Your task to perform on an android device: turn on javascript in the chrome app Image 0: 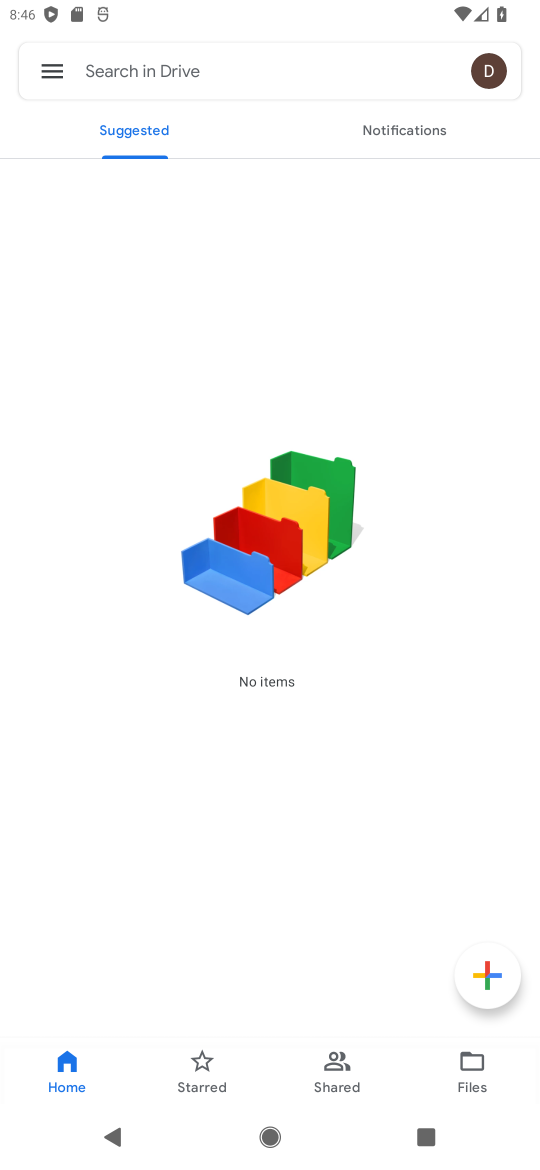
Step 0: press home button
Your task to perform on an android device: turn on javascript in the chrome app Image 1: 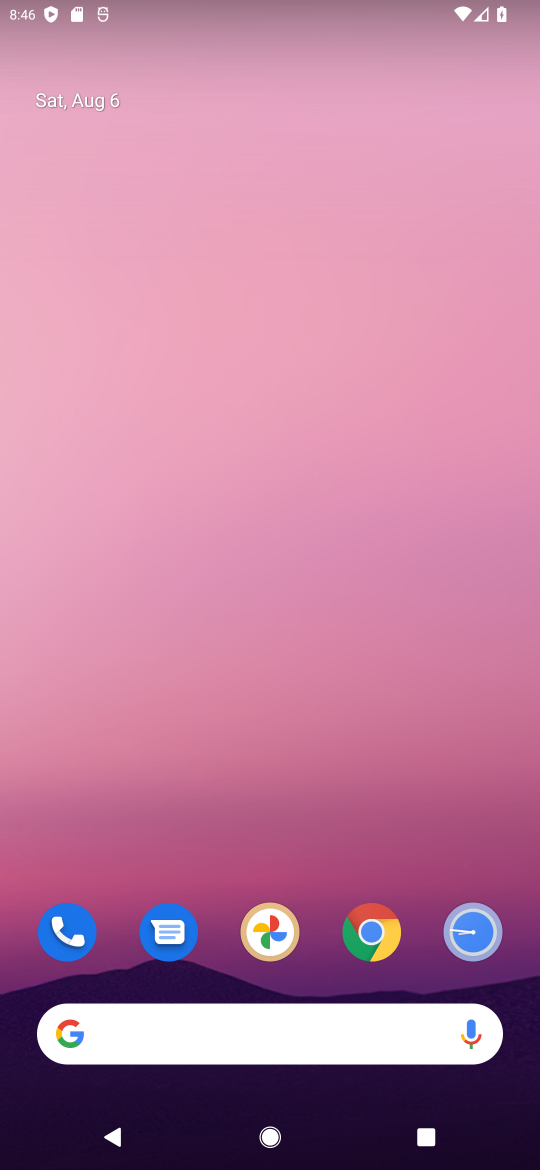
Step 1: click (373, 932)
Your task to perform on an android device: turn on javascript in the chrome app Image 2: 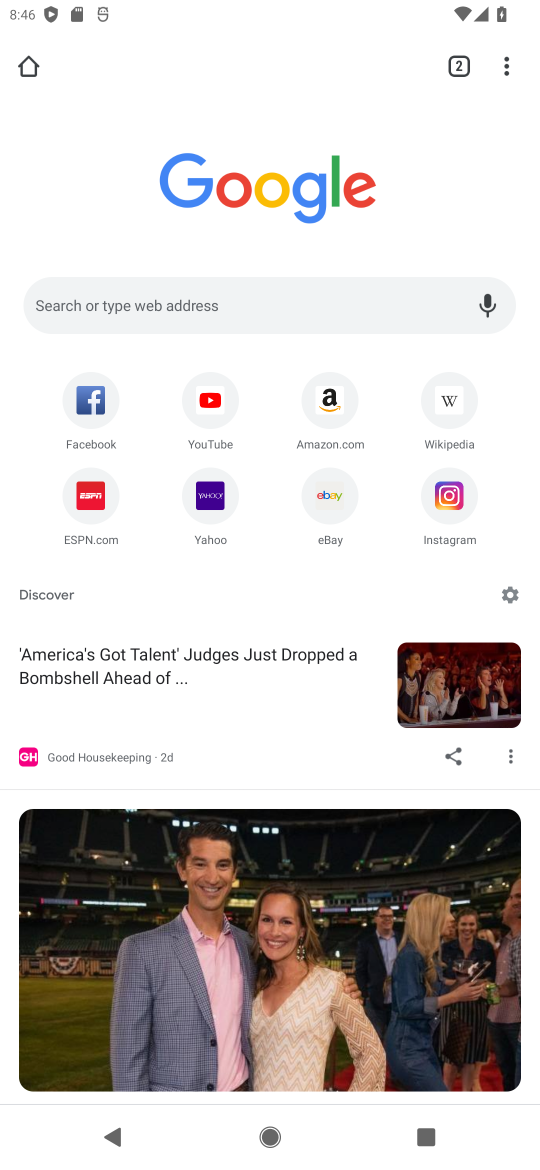
Step 2: click (514, 65)
Your task to perform on an android device: turn on javascript in the chrome app Image 3: 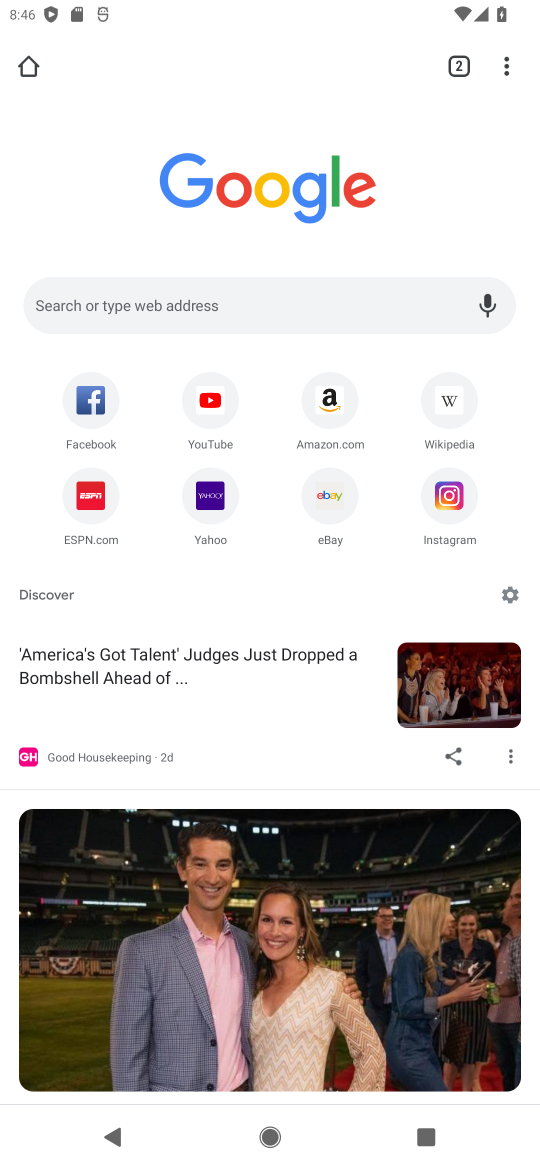
Step 3: click (504, 65)
Your task to perform on an android device: turn on javascript in the chrome app Image 4: 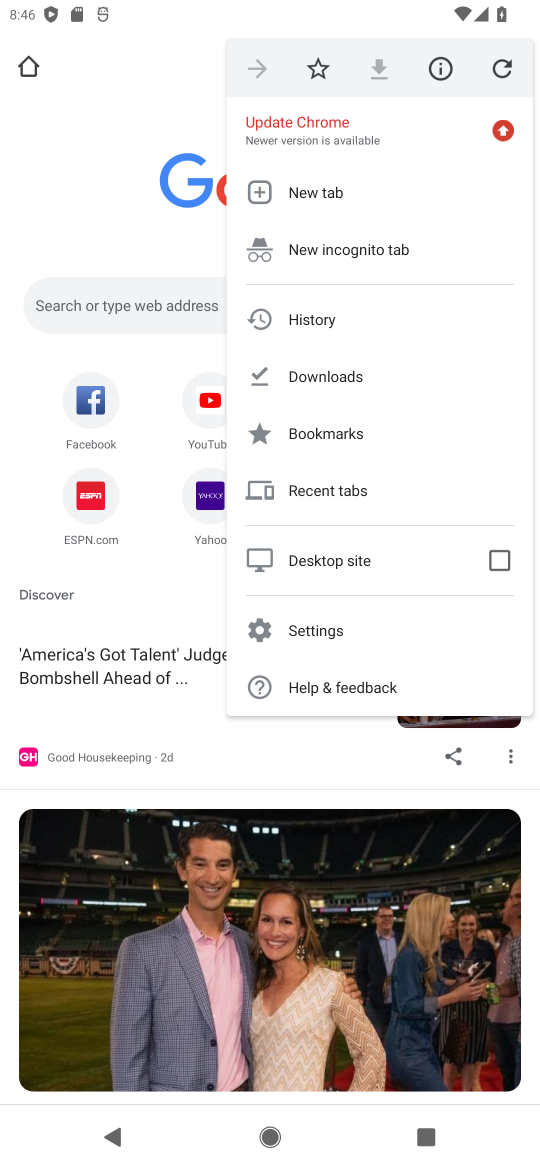
Step 4: click (311, 628)
Your task to perform on an android device: turn on javascript in the chrome app Image 5: 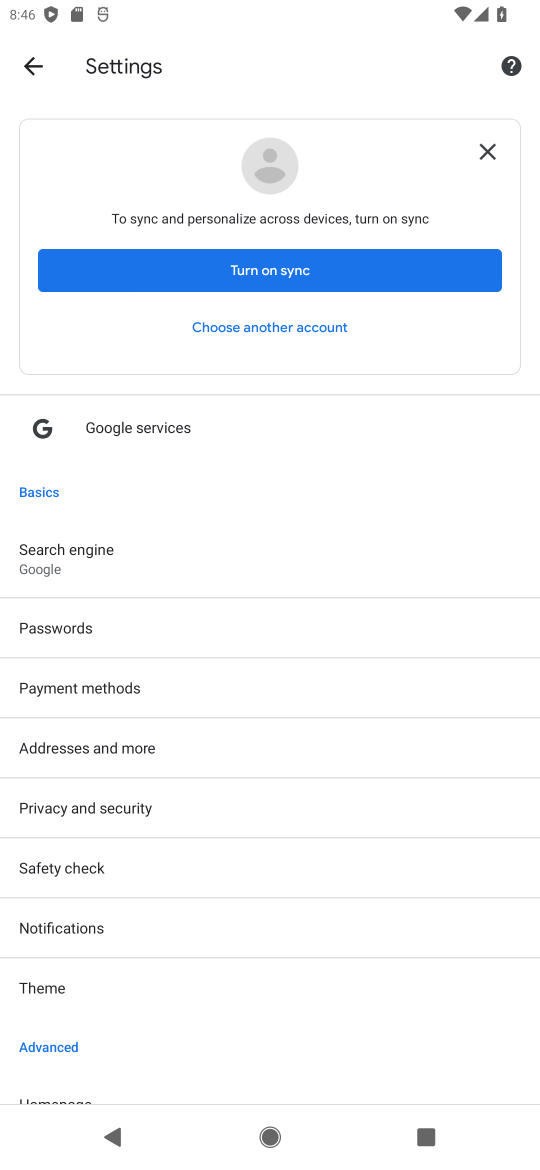
Step 5: drag from (76, 961) to (171, 736)
Your task to perform on an android device: turn on javascript in the chrome app Image 6: 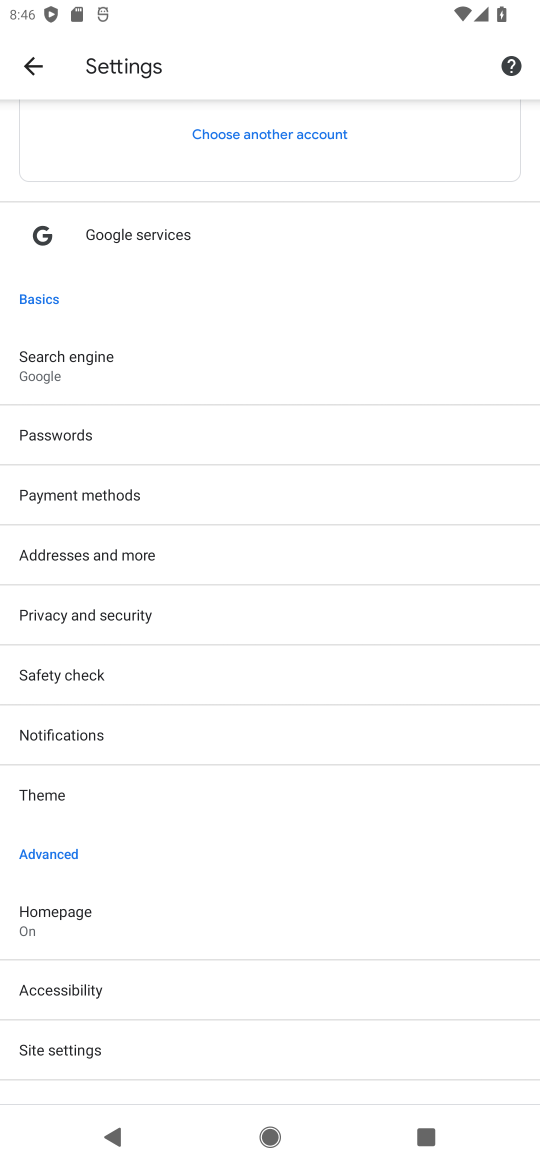
Step 6: drag from (104, 982) to (310, 691)
Your task to perform on an android device: turn on javascript in the chrome app Image 7: 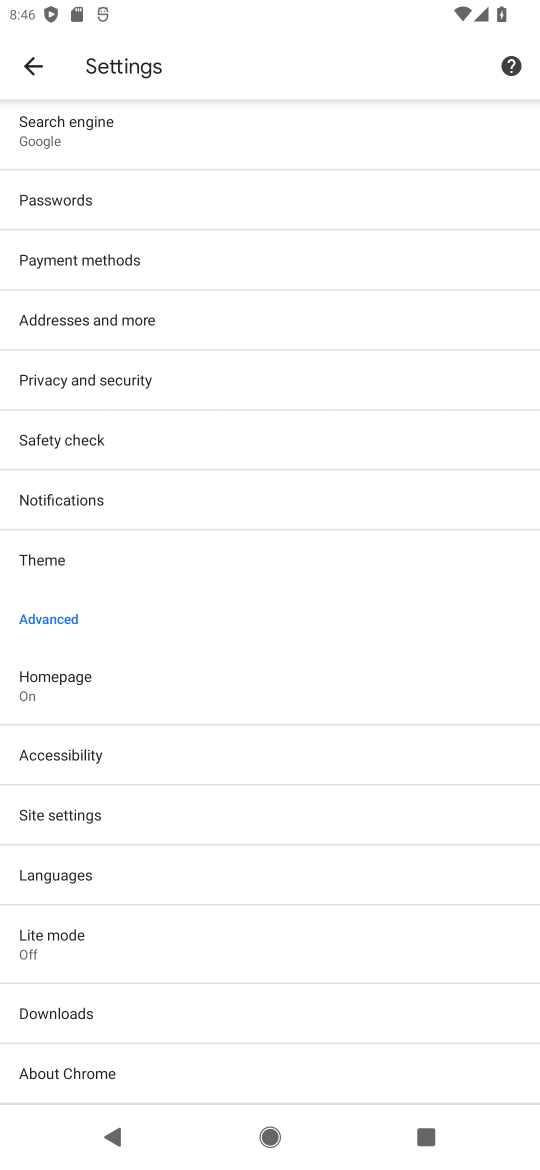
Step 7: click (76, 821)
Your task to perform on an android device: turn on javascript in the chrome app Image 8: 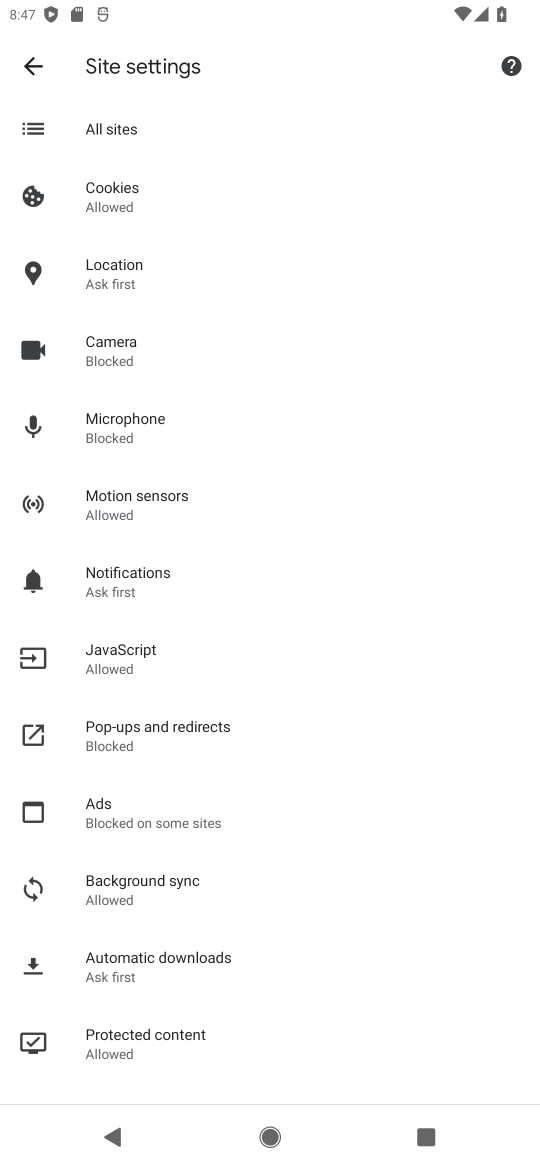
Step 8: click (131, 655)
Your task to perform on an android device: turn on javascript in the chrome app Image 9: 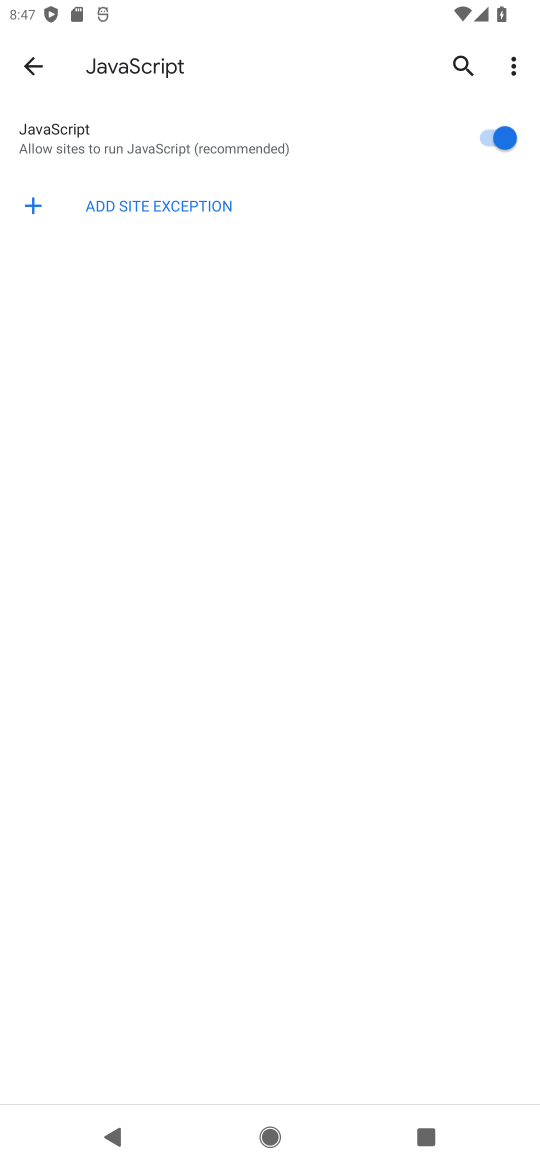
Step 9: task complete